Your task to perform on an android device: clear history in the chrome app Image 0: 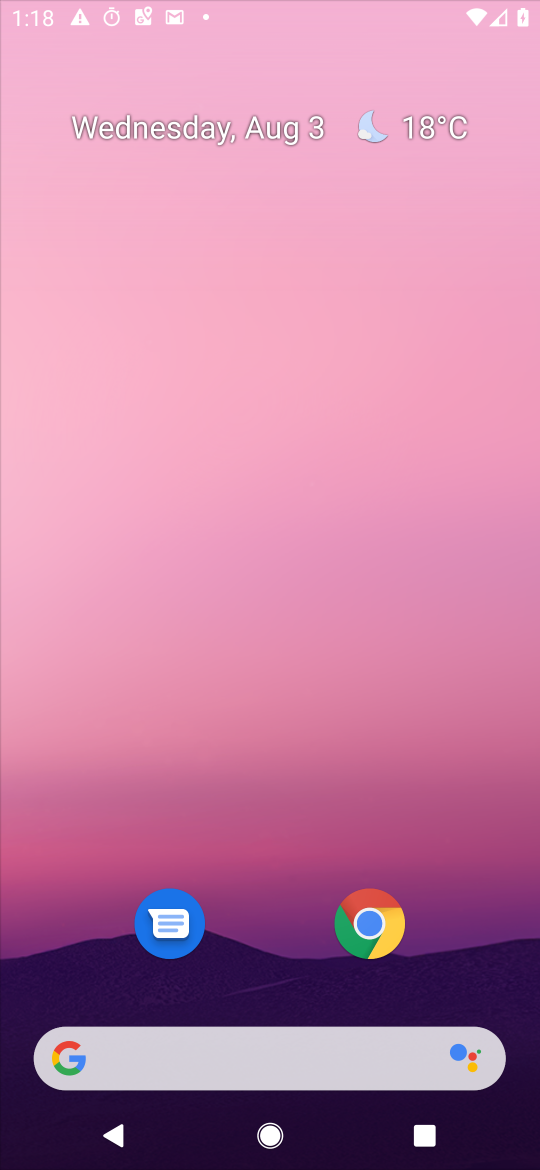
Step 0: drag from (315, 953) to (303, 235)
Your task to perform on an android device: clear history in the chrome app Image 1: 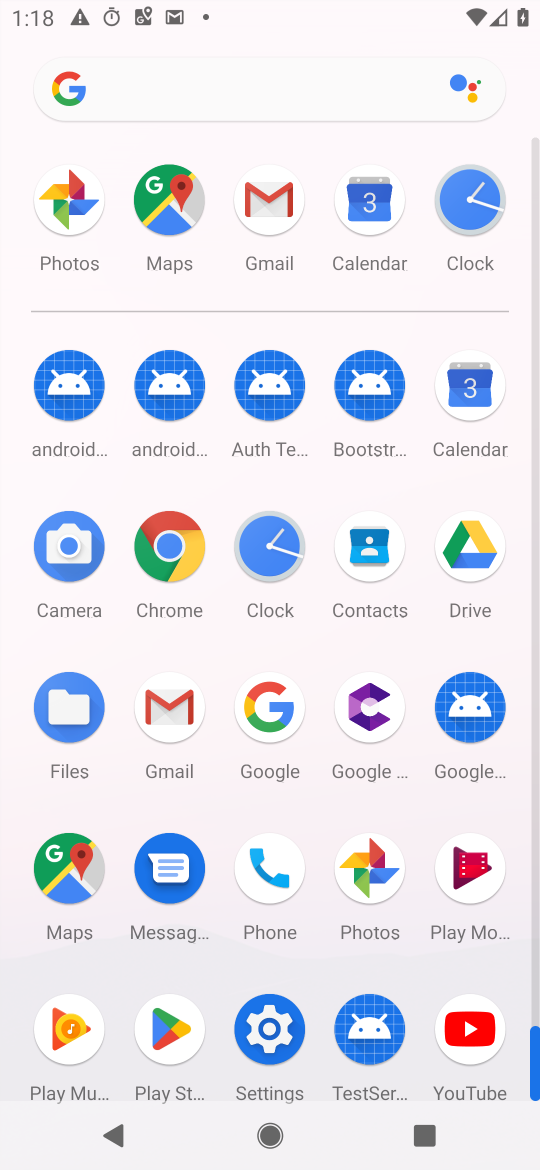
Step 1: click (168, 534)
Your task to perform on an android device: clear history in the chrome app Image 2: 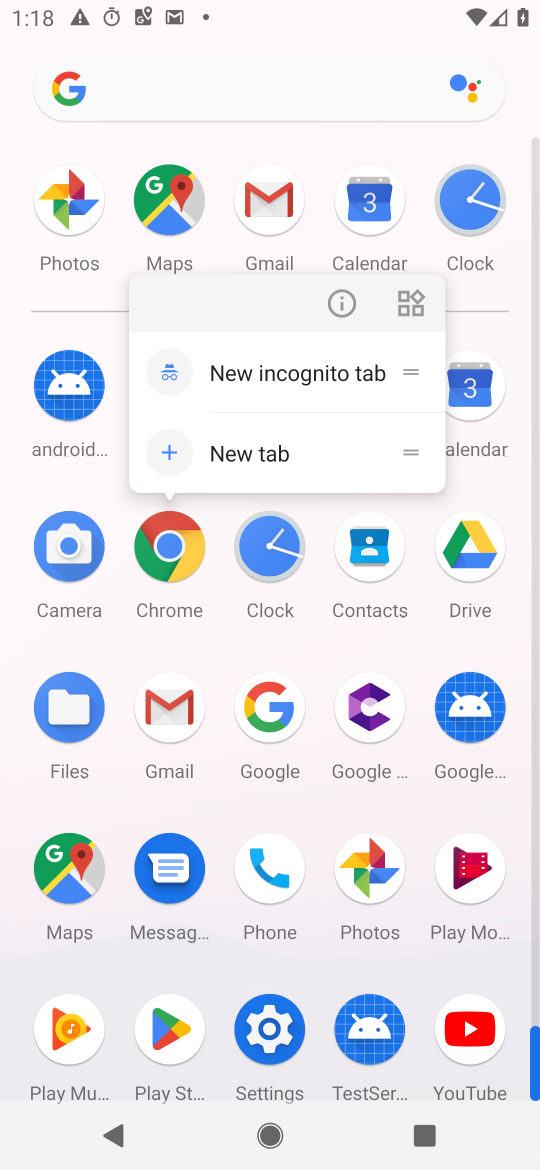
Step 2: click (335, 299)
Your task to perform on an android device: clear history in the chrome app Image 3: 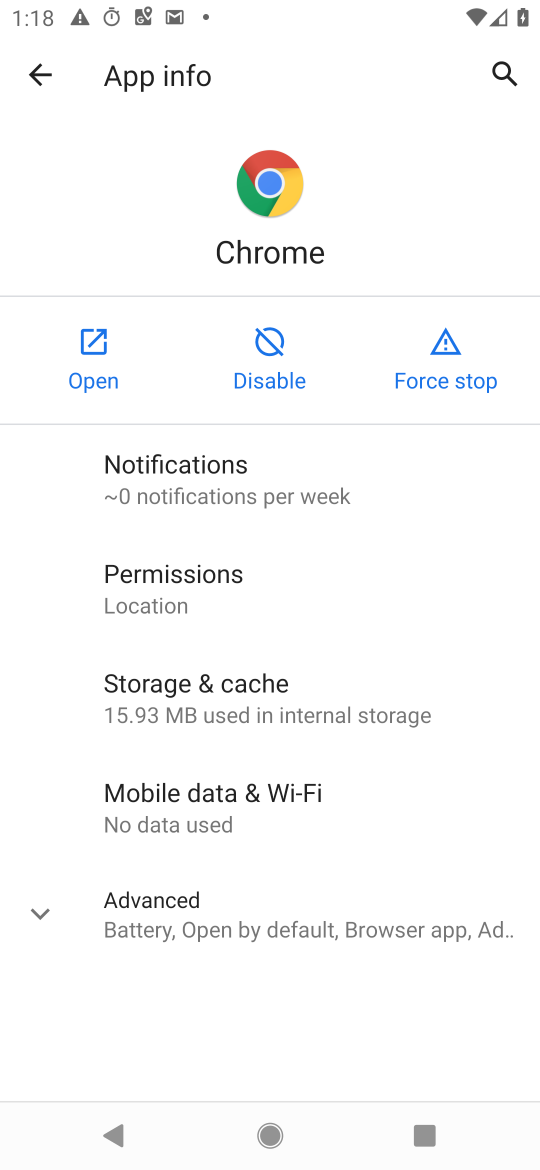
Step 3: click (90, 354)
Your task to perform on an android device: clear history in the chrome app Image 4: 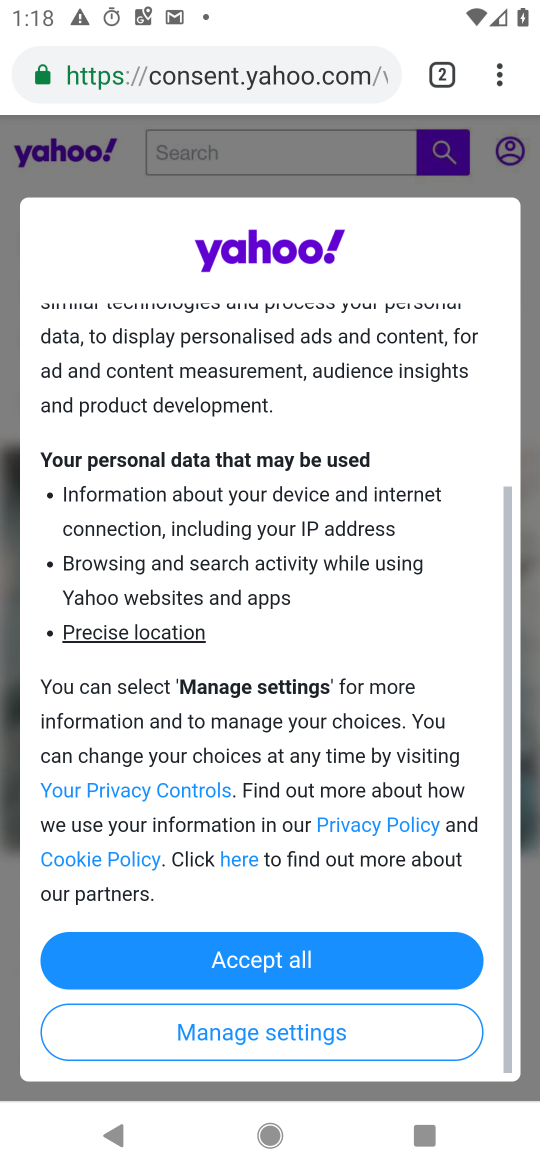
Step 4: drag from (272, 880) to (207, 368)
Your task to perform on an android device: clear history in the chrome app Image 5: 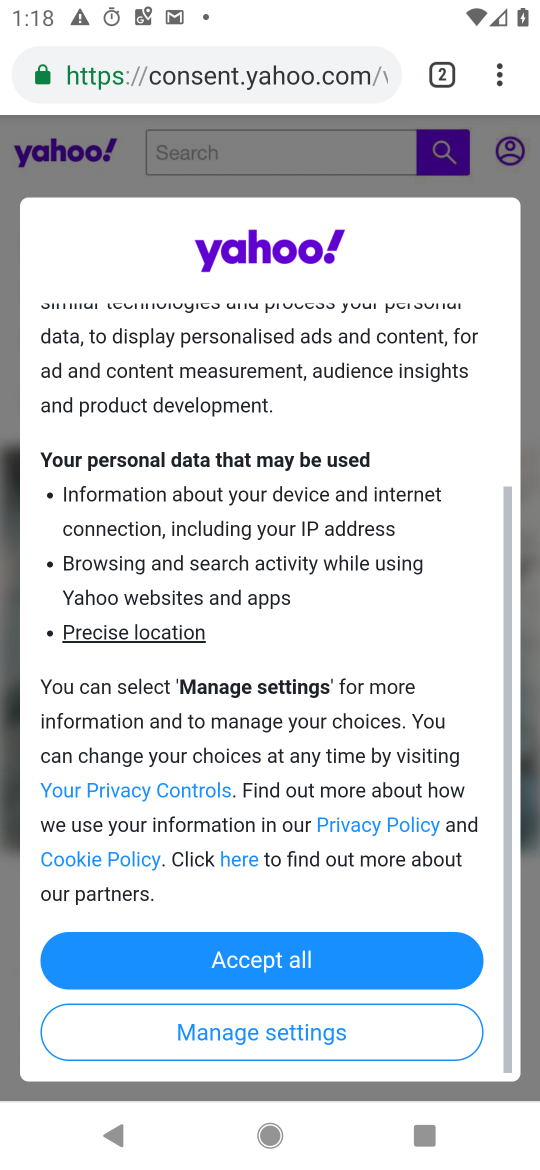
Step 5: drag from (300, 858) to (267, 478)
Your task to perform on an android device: clear history in the chrome app Image 6: 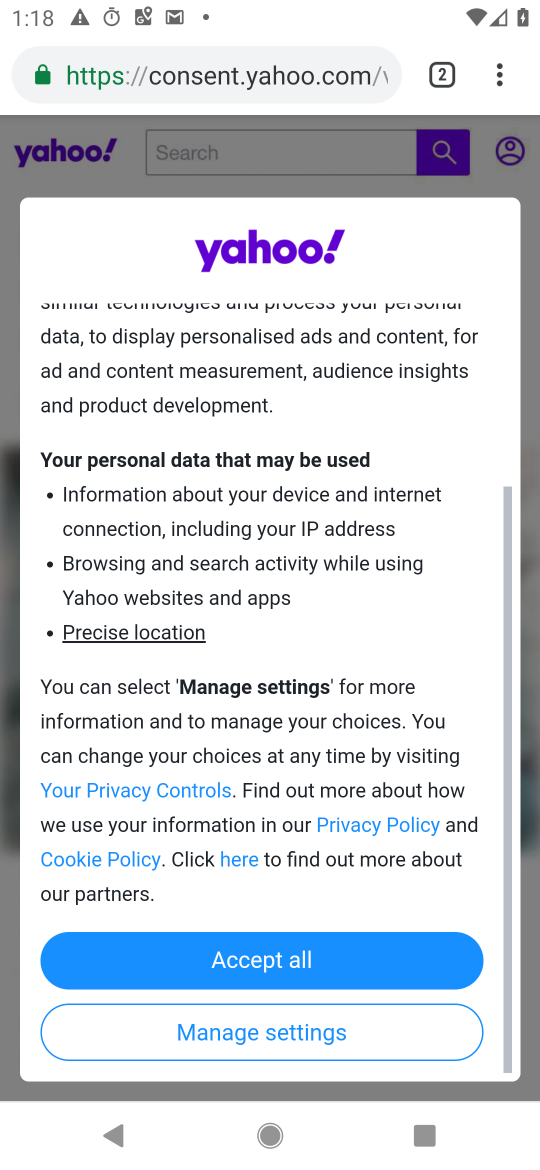
Step 6: drag from (386, 867) to (364, 460)
Your task to perform on an android device: clear history in the chrome app Image 7: 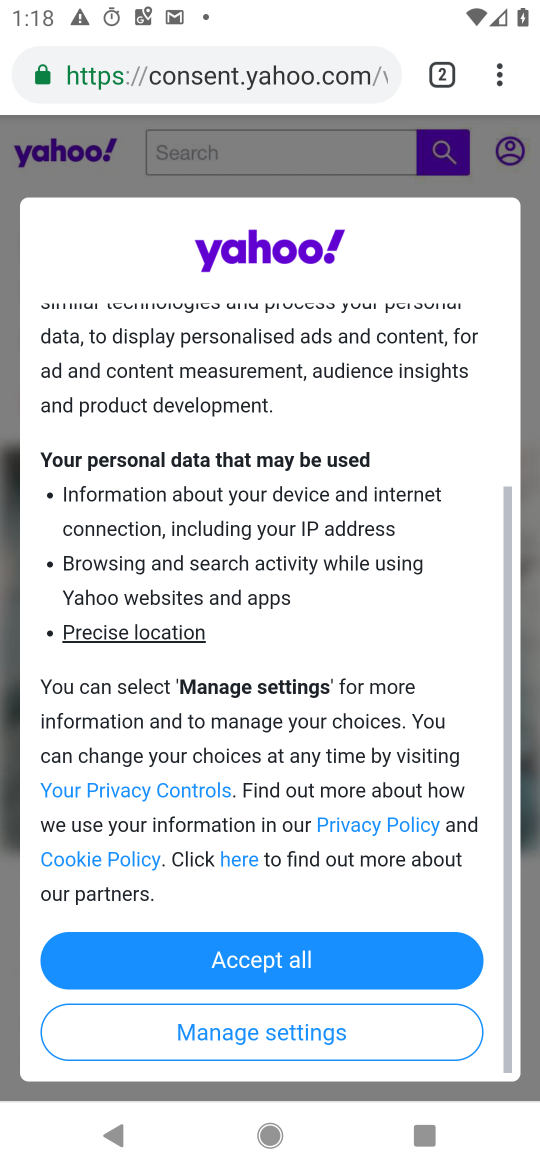
Step 7: drag from (496, 69) to (321, 491)
Your task to perform on an android device: clear history in the chrome app Image 8: 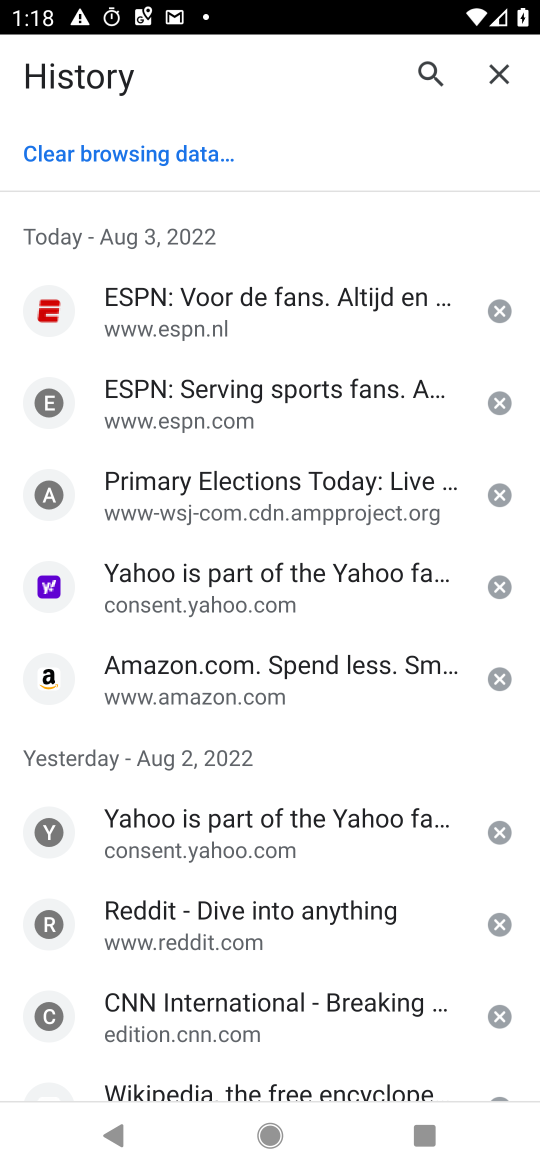
Step 8: click (162, 152)
Your task to perform on an android device: clear history in the chrome app Image 9: 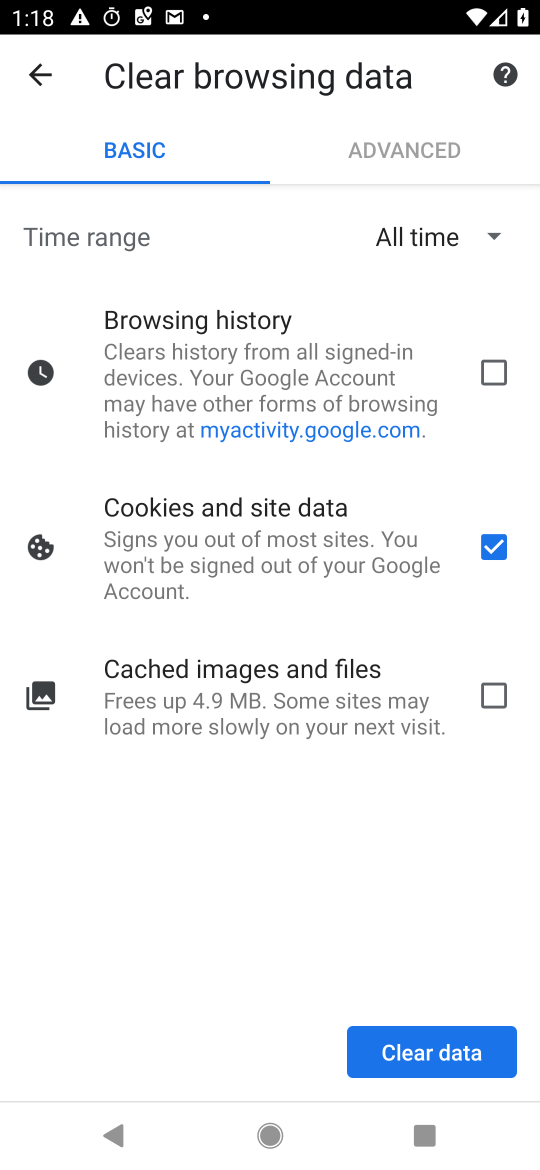
Step 9: click (479, 366)
Your task to perform on an android device: clear history in the chrome app Image 10: 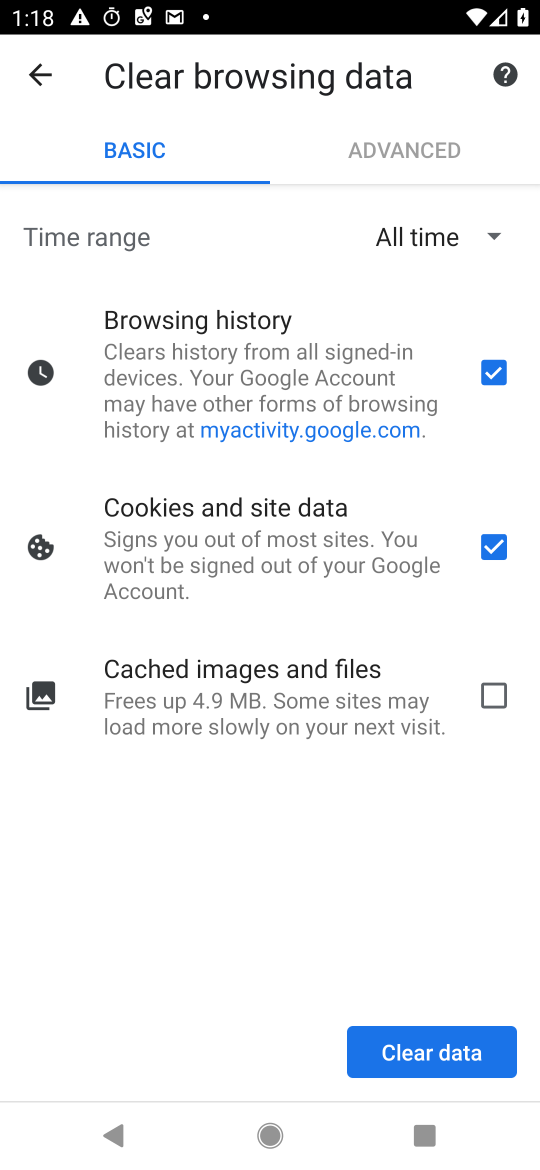
Step 10: click (496, 544)
Your task to perform on an android device: clear history in the chrome app Image 11: 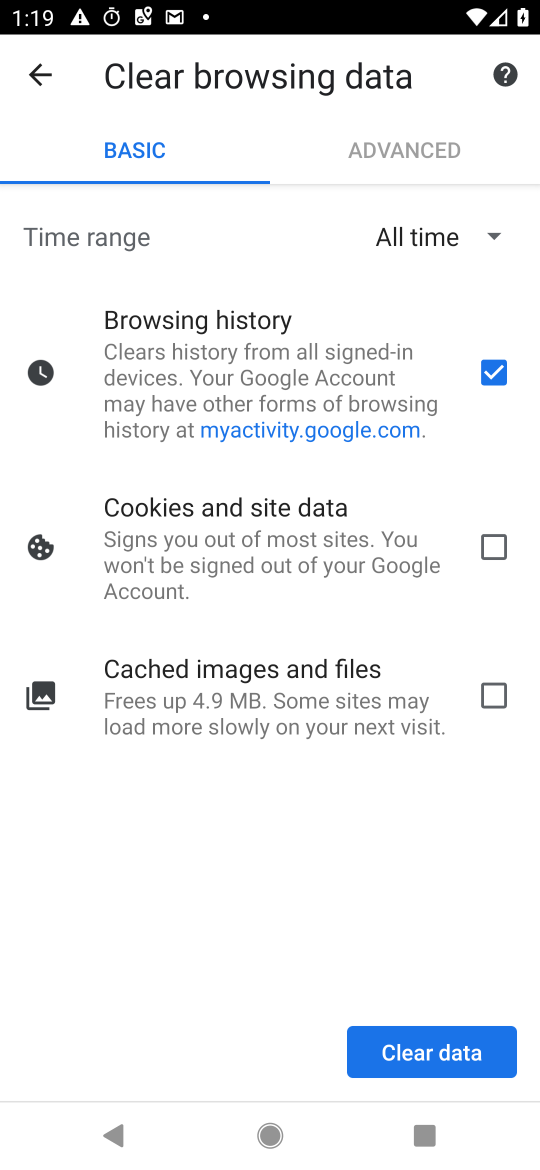
Step 11: click (510, 536)
Your task to perform on an android device: clear history in the chrome app Image 12: 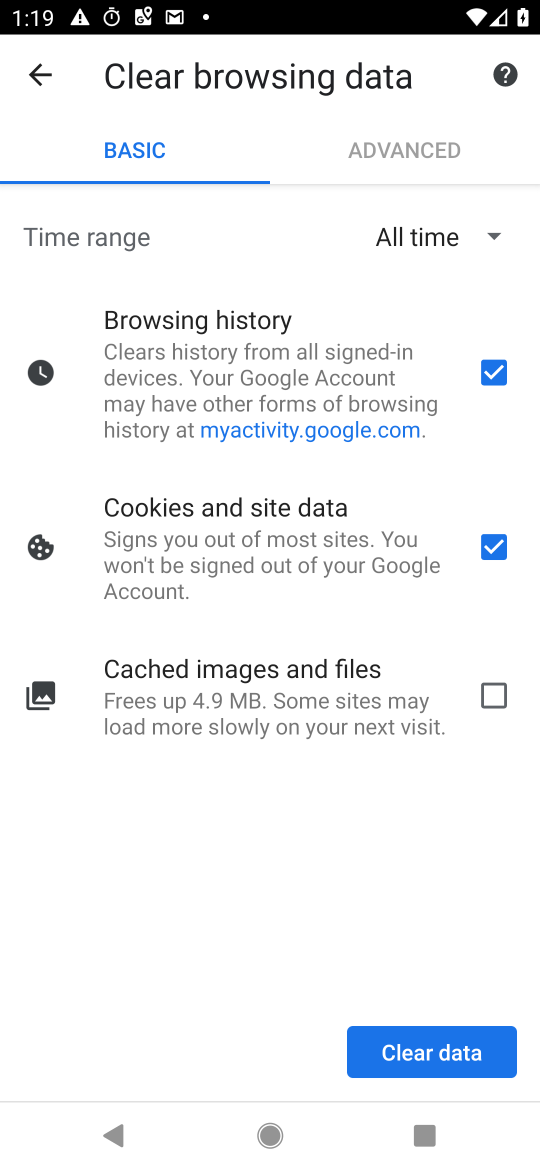
Step 12: click (441, 681)
Your task to perform on an android device: clear history in the chrome app Image 13: 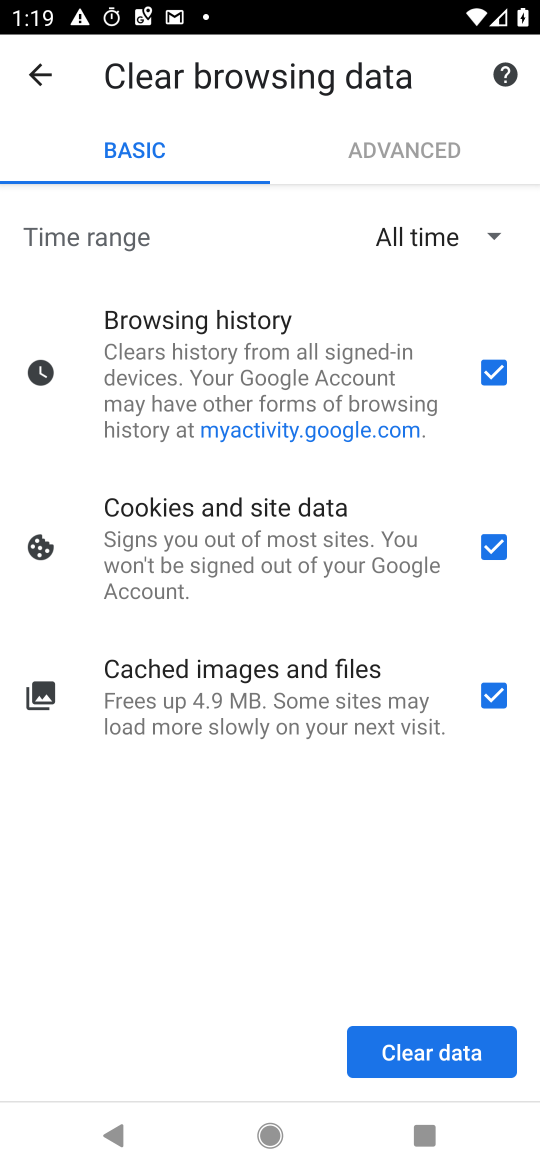
Step 13: click (407, 1053)
Your task to perform on an android device: clear history in the chrome app Image 14: 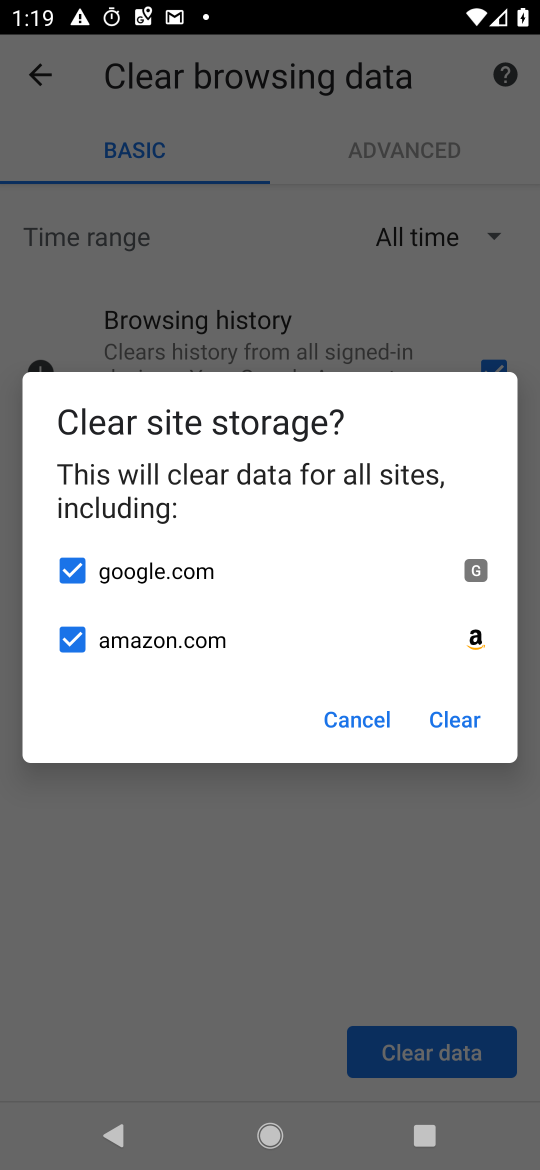
Step 14: click (474, 738)
Your task to perform on an android device: clear history in the chrome app Image 15: 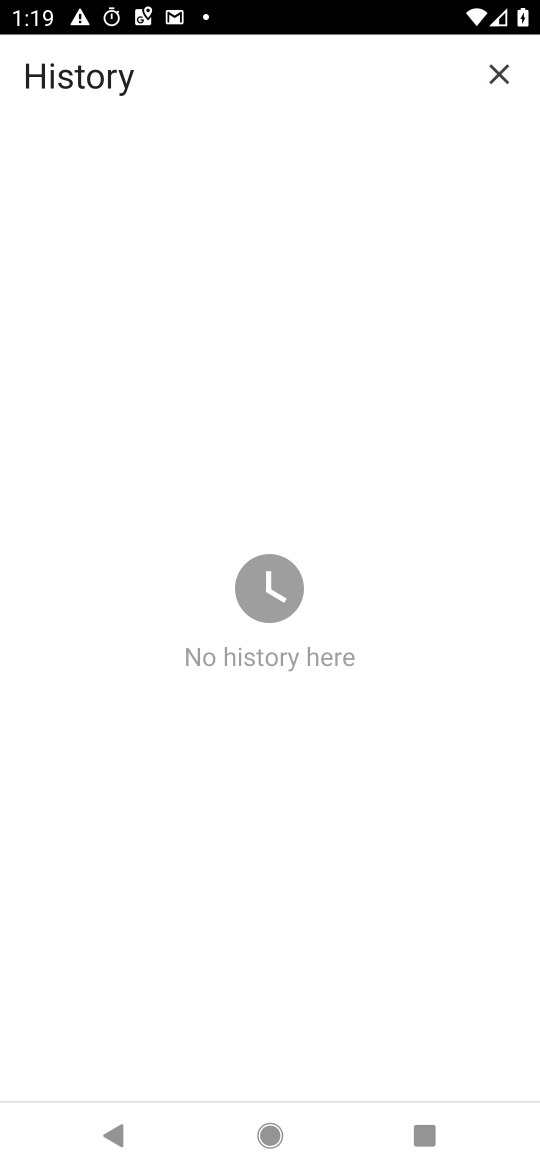
Step 15: task complete